Your task to perform on an android device: toggle pop-ups in chrome Image 0: 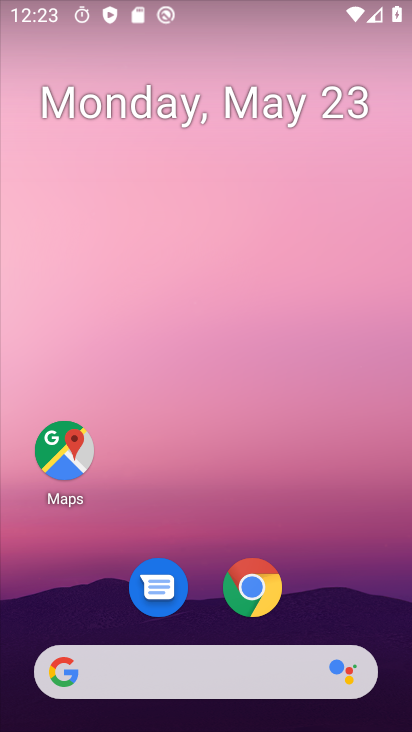
Step 0: click (244, 563)
Your task to perform on an android device: toggle pop-ups in chrome Image 1: 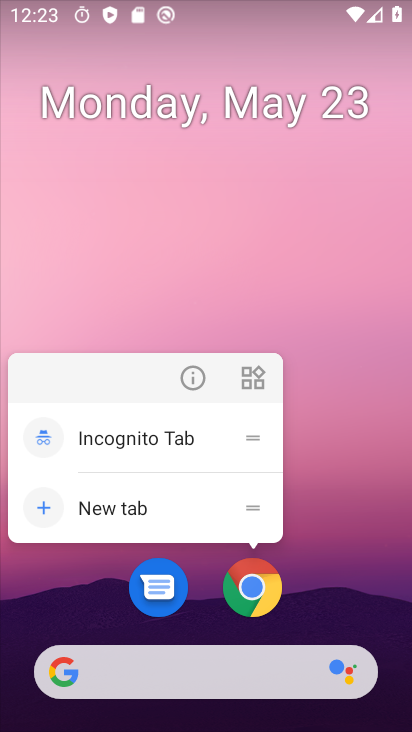
Step 1: click (246, 579)
Your task to perform on an android device: toggle pop-ups in chrome Image 2: 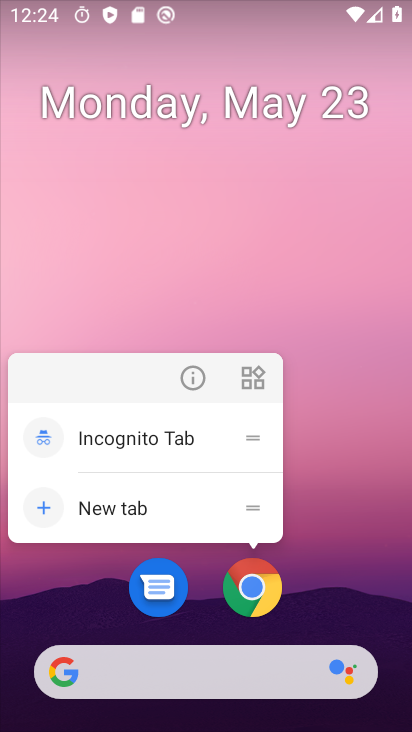
Step 2: click (259, 594)
Your task to perform on an android device: toggle pop-ups in chrome Image 3: 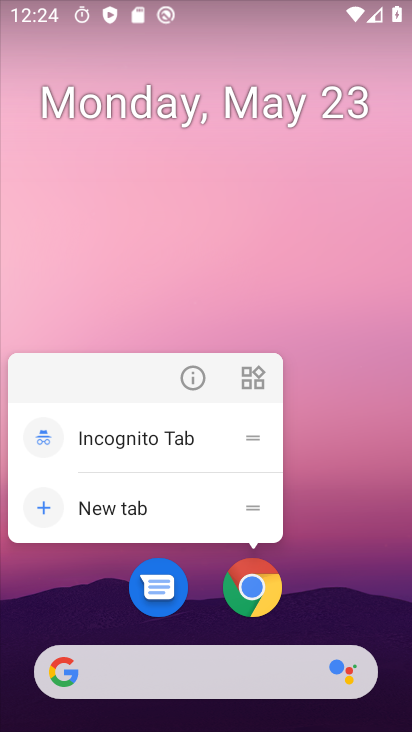
Step 3: click (259, 594)
Your task to perform on an android device: toggle pop-ups in chrome Image 4: 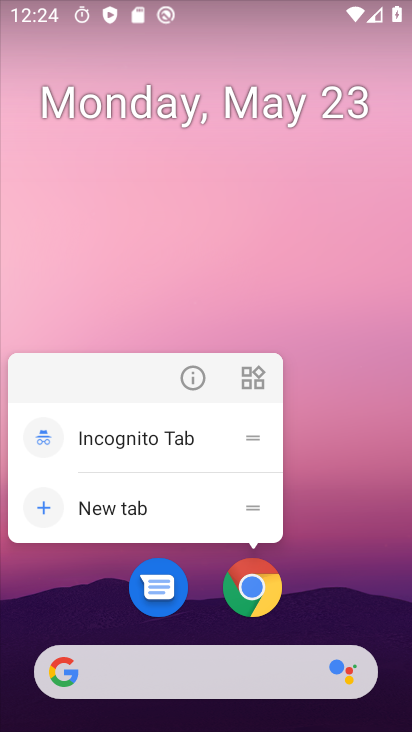
Step 4: click (255, 589)
Your task to perform on an android device: toggle pop-ups in chrome Image 5: 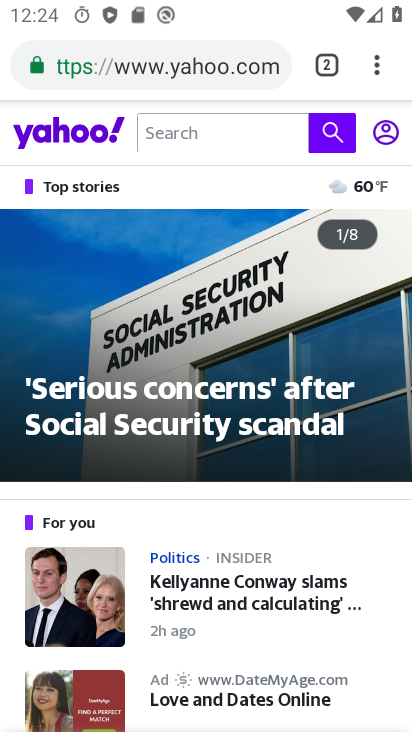
Step 5: drag from (381, 60) to (166, 629)
Your task to perform on an android device: toggle pop-ups in chrome Image 6: 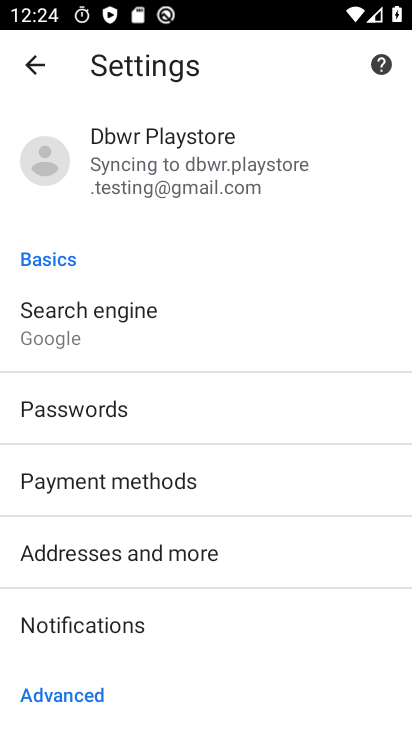
Step 6: drag from (204, 662) to (241, 219)
Your task to perform on an android device: toggle pop-ups in chrome Image 7: 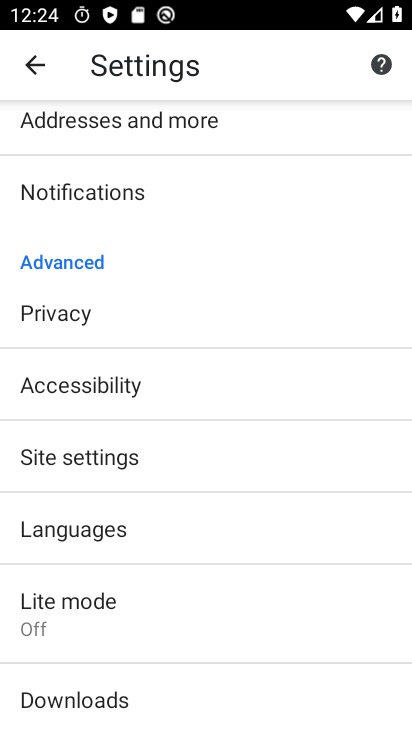
Step 7: click (102, 462)
Your task to perform on an android device: toggle pop-ups in chrome Image 8: 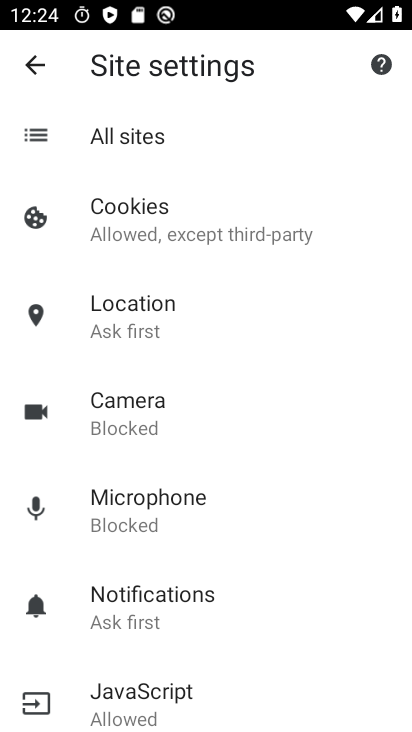
Step 8: drag from (148, 697) to (282, 194)
Your task to perform on an android device: toggle pop-ups in chrome Image 9: 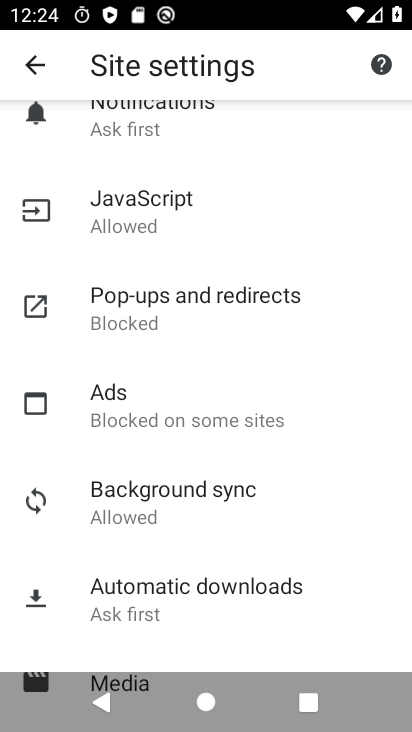
Step 9: click (203, 297)
Your task to perform on an android device: toggle pop-ups in chrome Image 10: 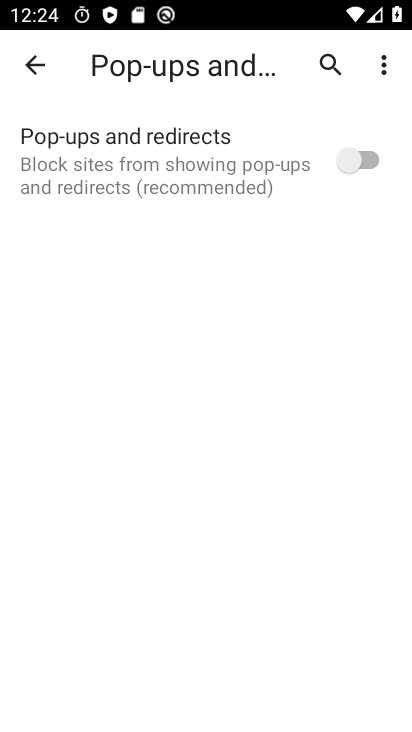
Step 10: click (355, 155)
Your task to perform on an android device: toggle pop-ups in chrome Image 11: 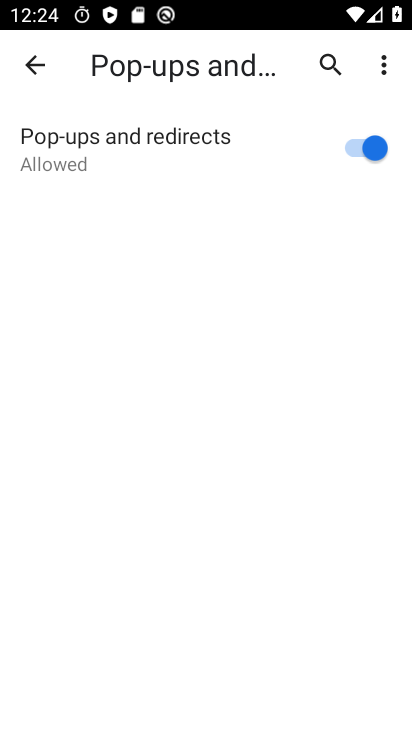
Step 11: task complete